Your task to perform on an android device: Go to Wikipedia Image 0: 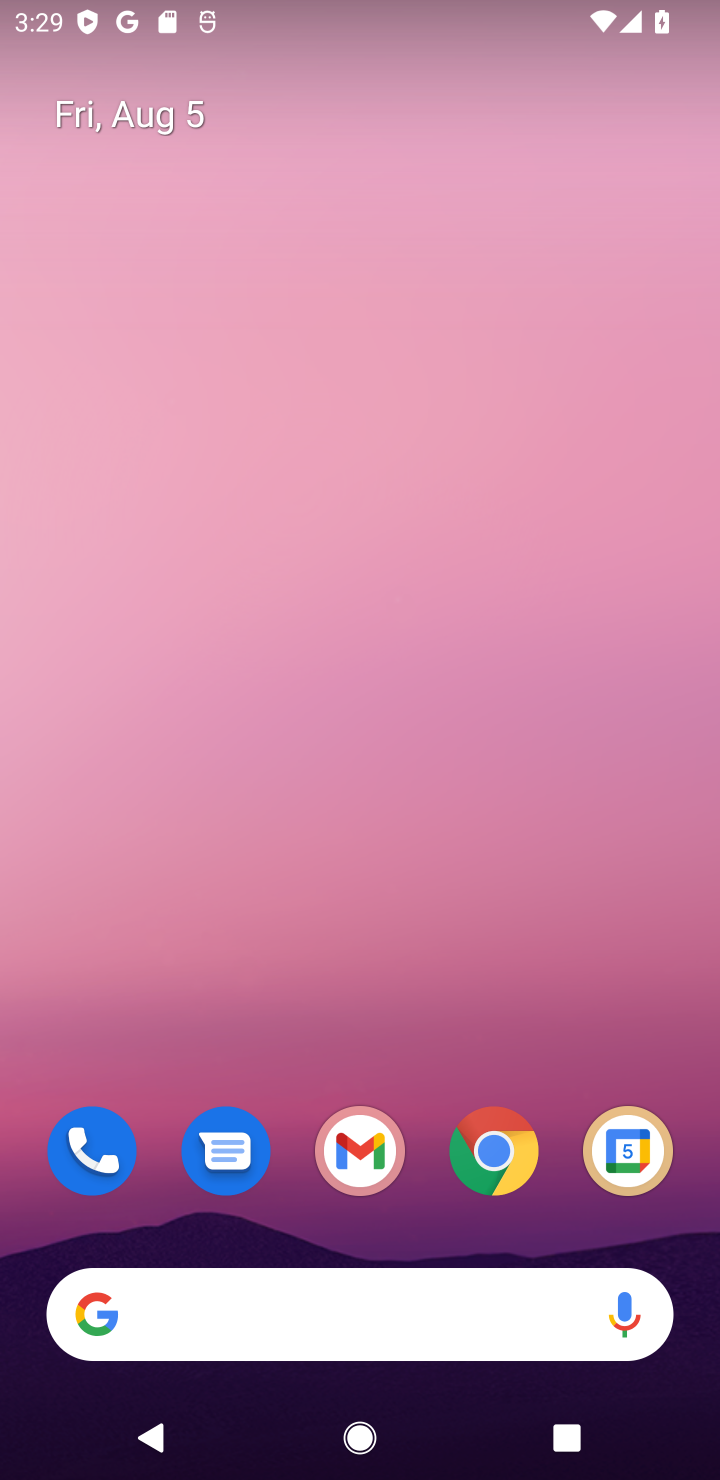
Step 0: click (484, 1148)
Your task to perform on an android device: Go to Wikipedia Image 1: 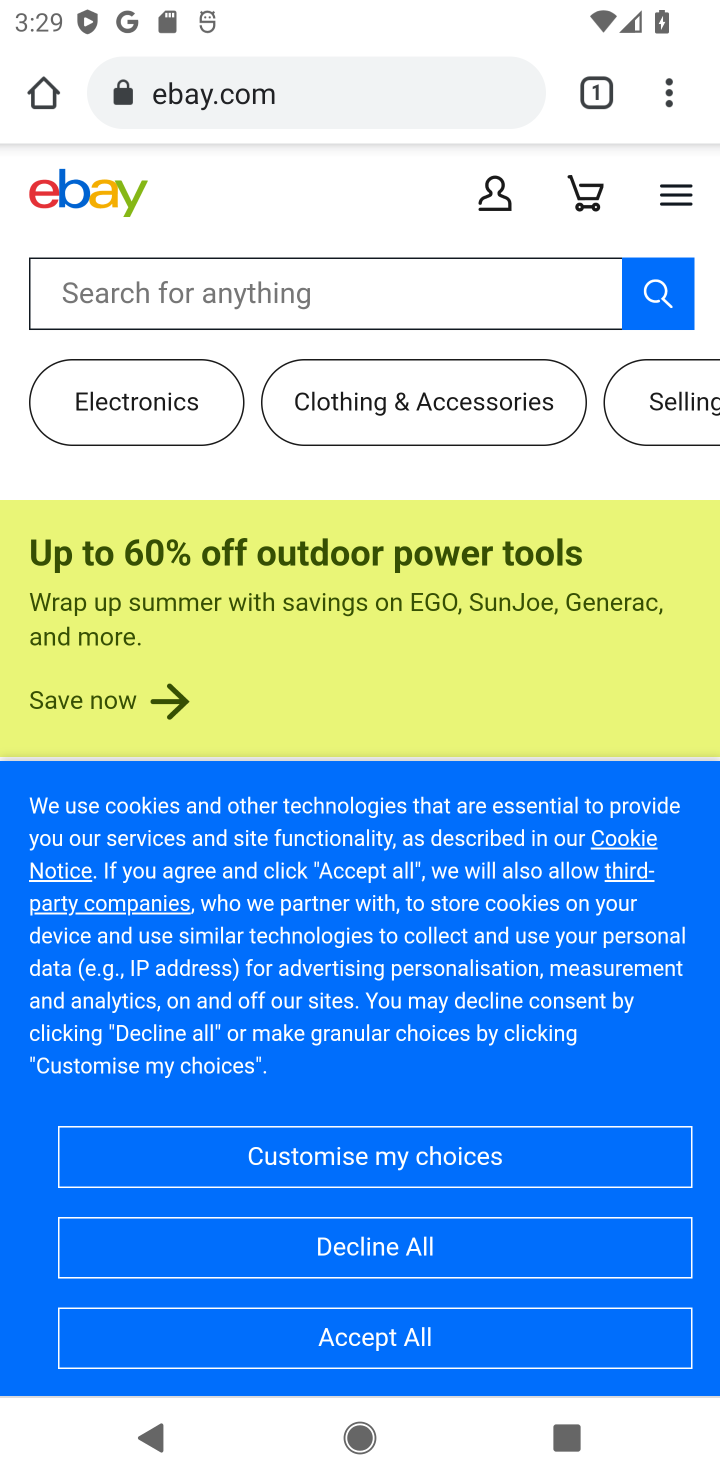
Step 1: click (351, 121)
Your task to perform on an android device: Go to Wikipedia Image 2: 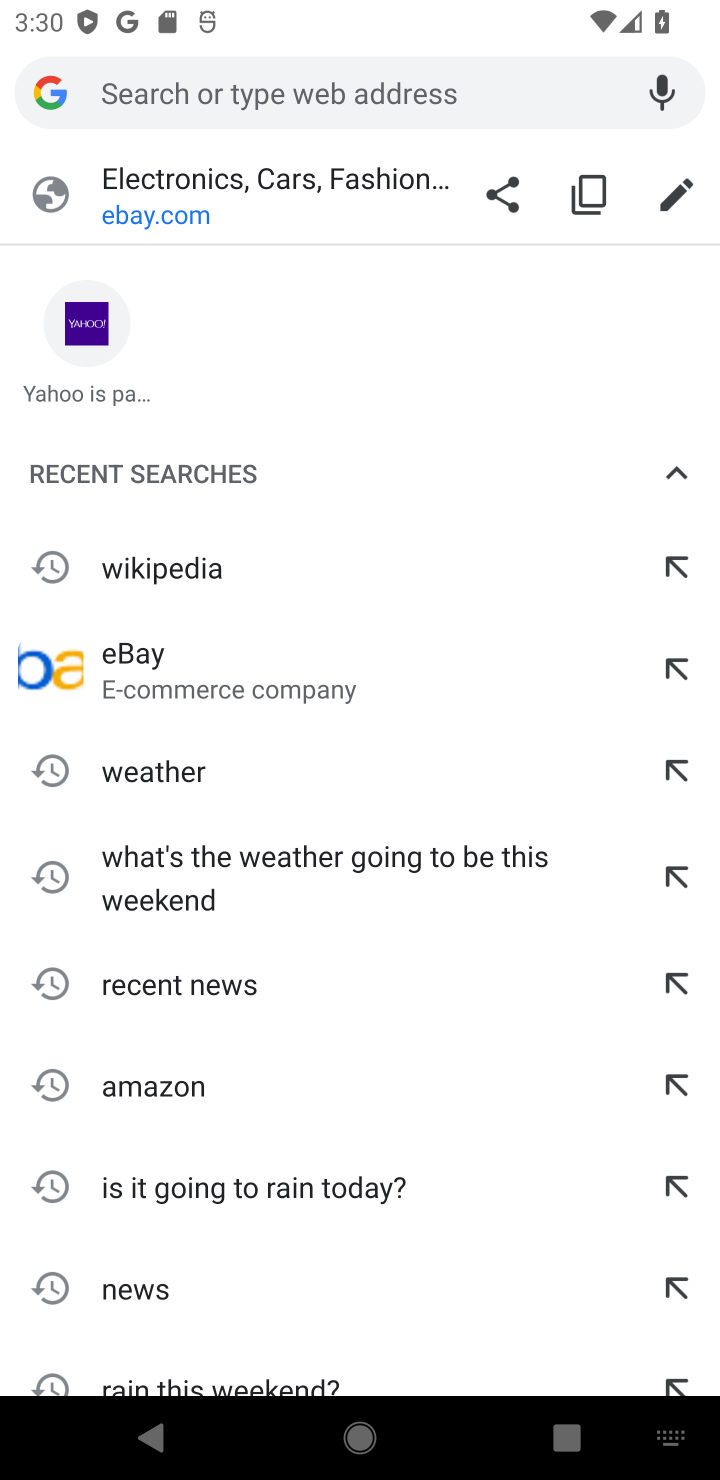
Step 2: type "wikipedia"
Your task to perform on an android device: Go to Wikipedia Image 3: 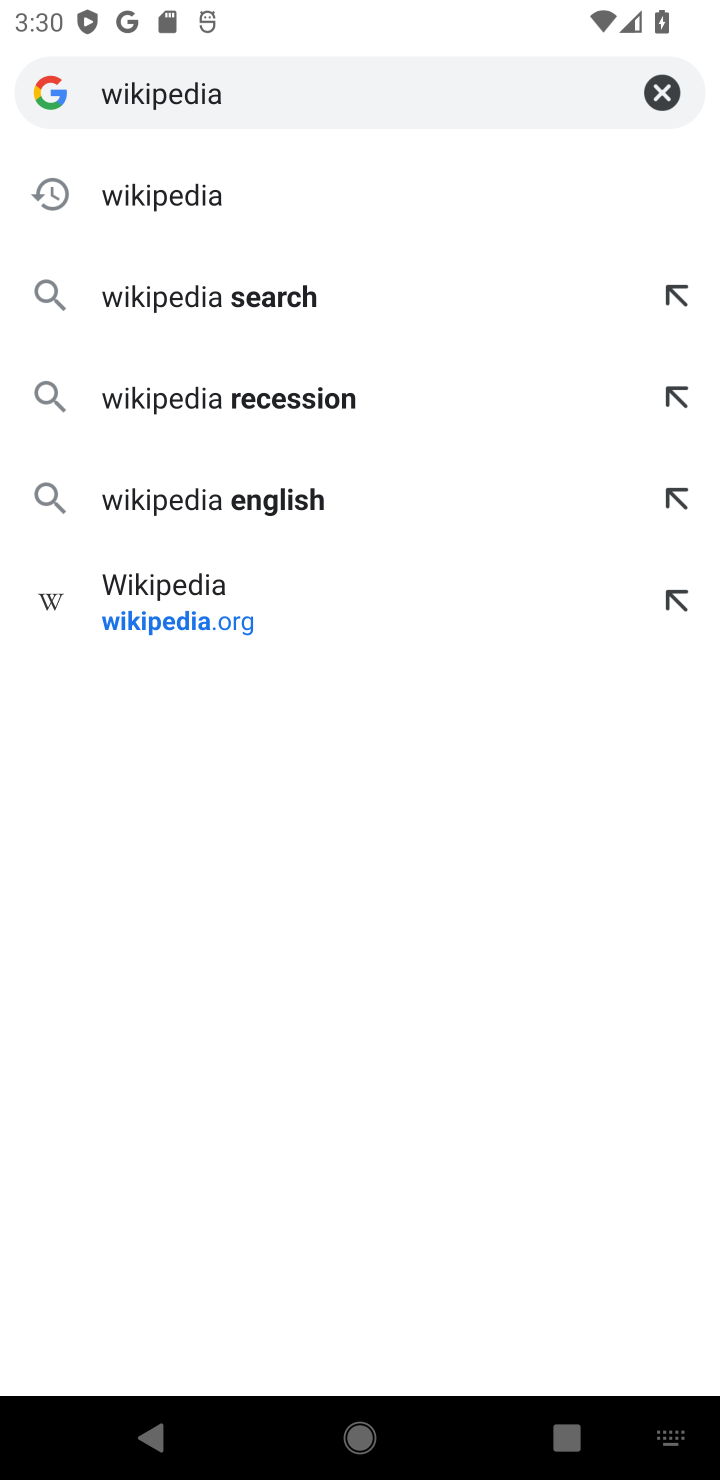
Step 3: click (114, 211)
Your task to perform on an android device: Go to Wikipedia Image 4: 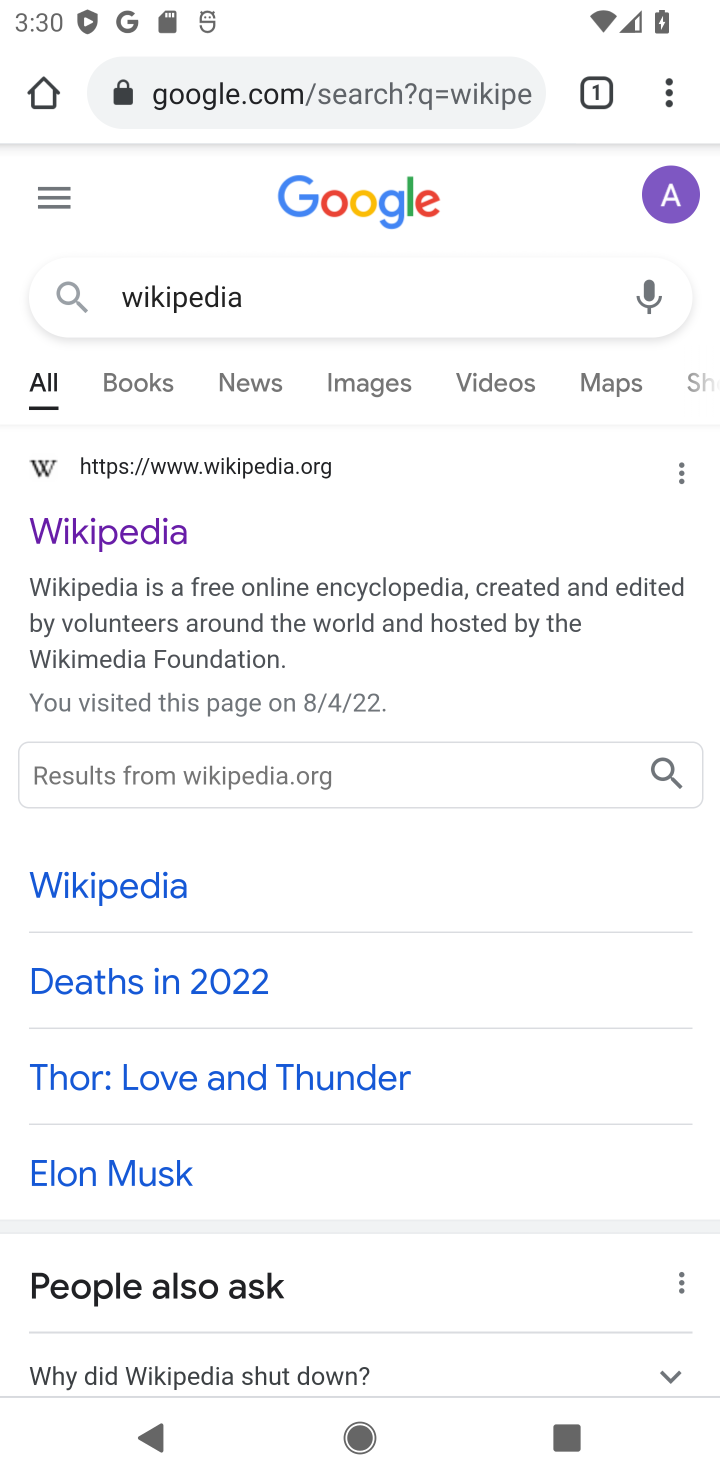
Step 4: click (101, 553)
Your task to perform on an android device: Go to Wikipedia Image 5: 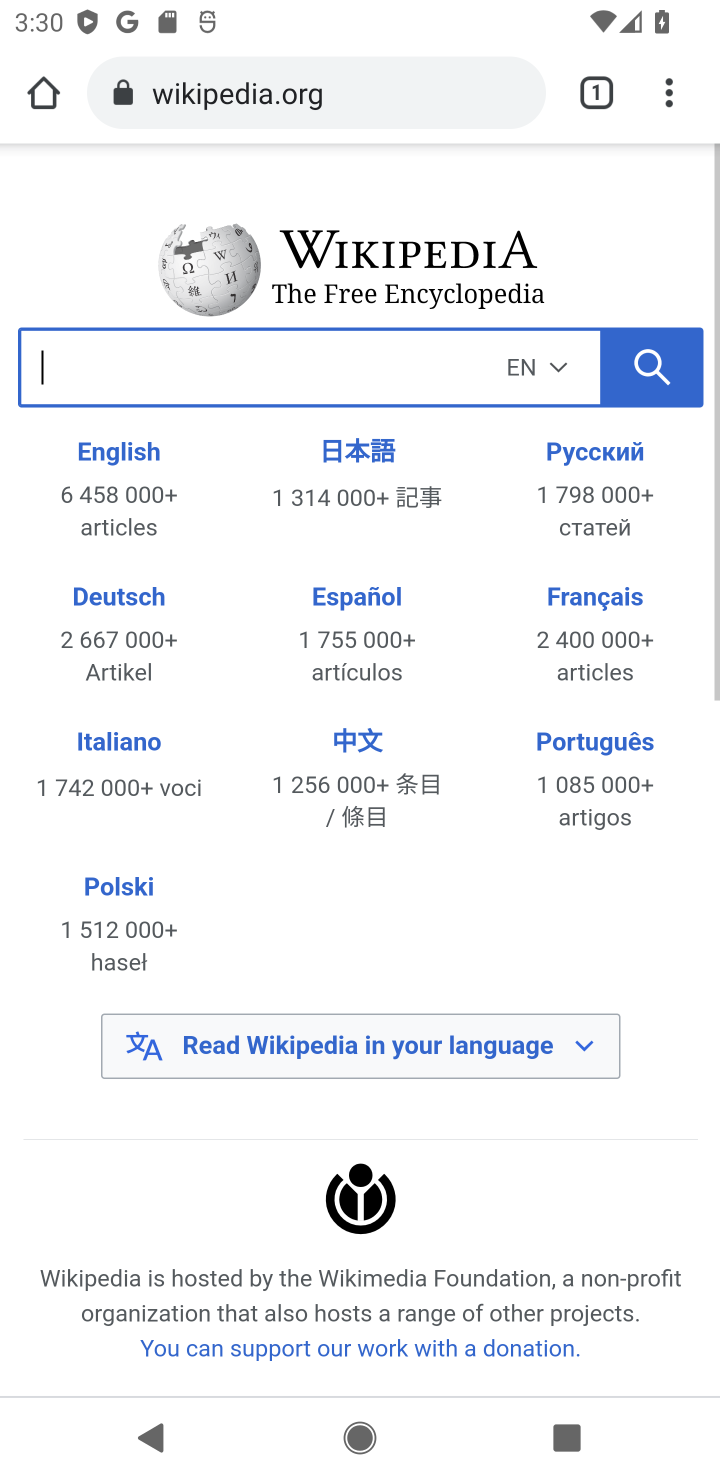
Step 5: click (101, 553)
Your task to perform on an android device: Go to Wikipedia Image 6: 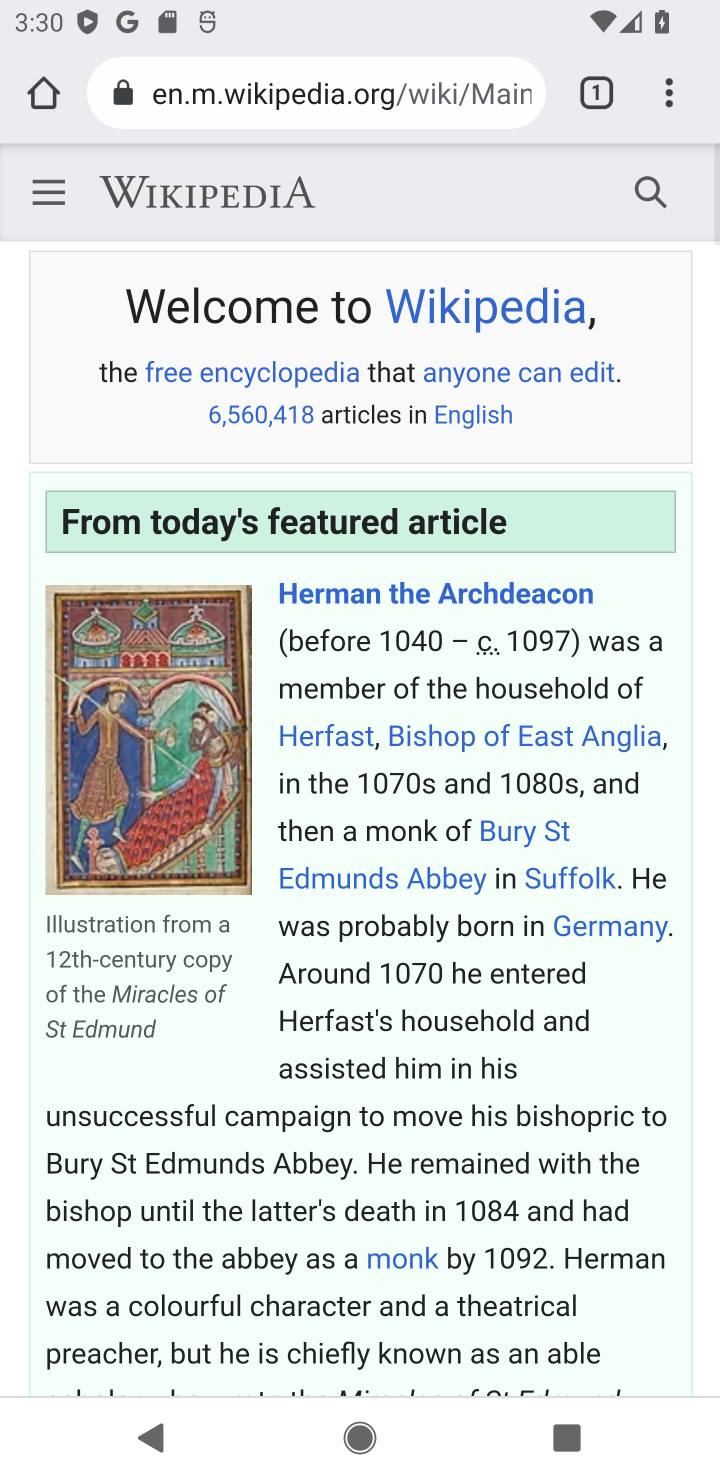
Step 6: task complete